Your task to perform on an android device: install app "Spotify" Image 0: 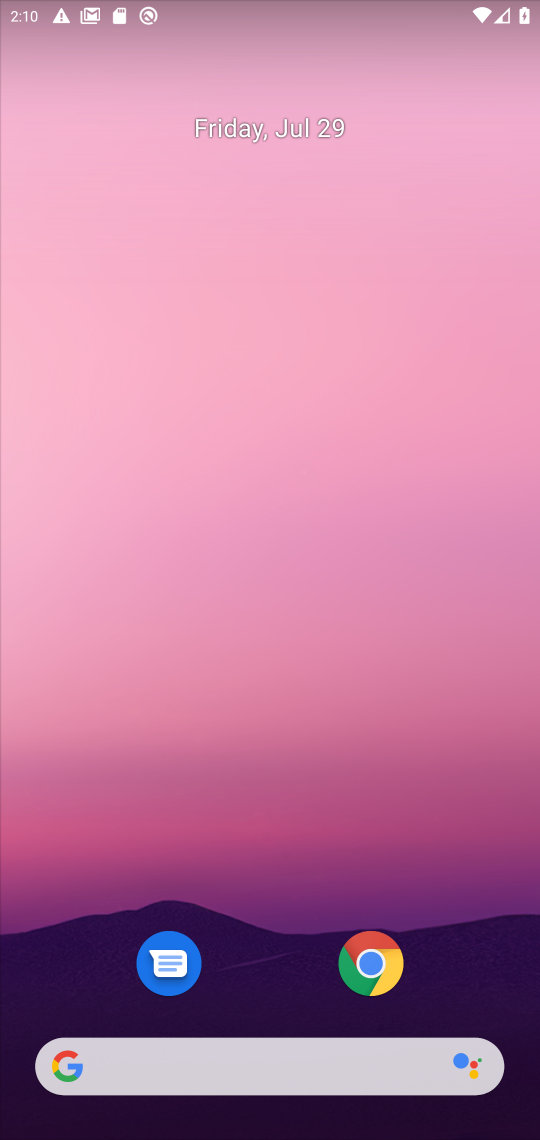
Step 0: drag from (260, 950) to (196, 58)
Your task to perform on an android device: install app "Spotify" Image 1: 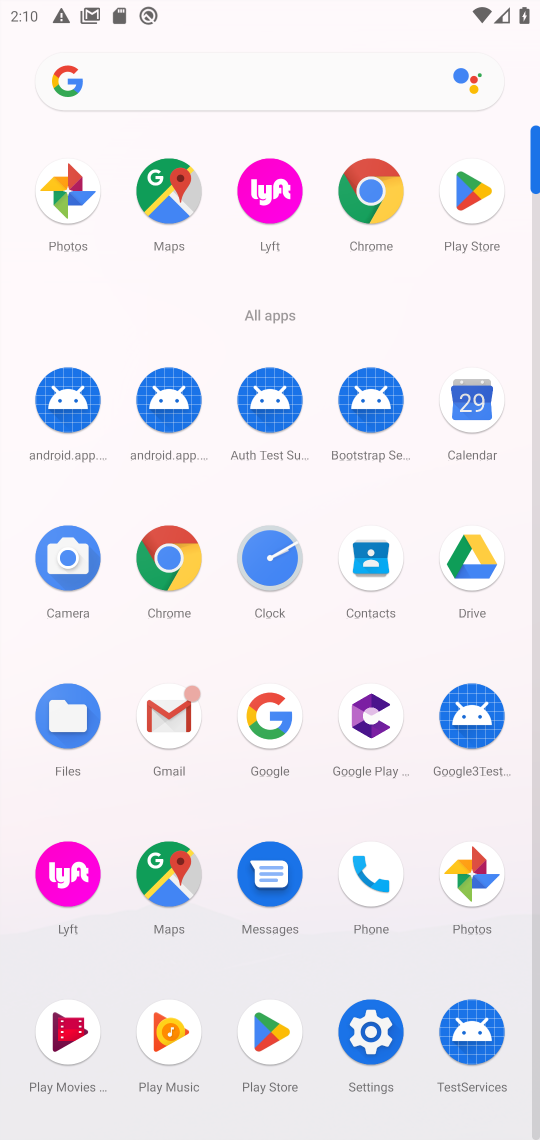
Step 1: click (462, 177)
Your task to perform on an android device: install app "Spotify" Image 2: 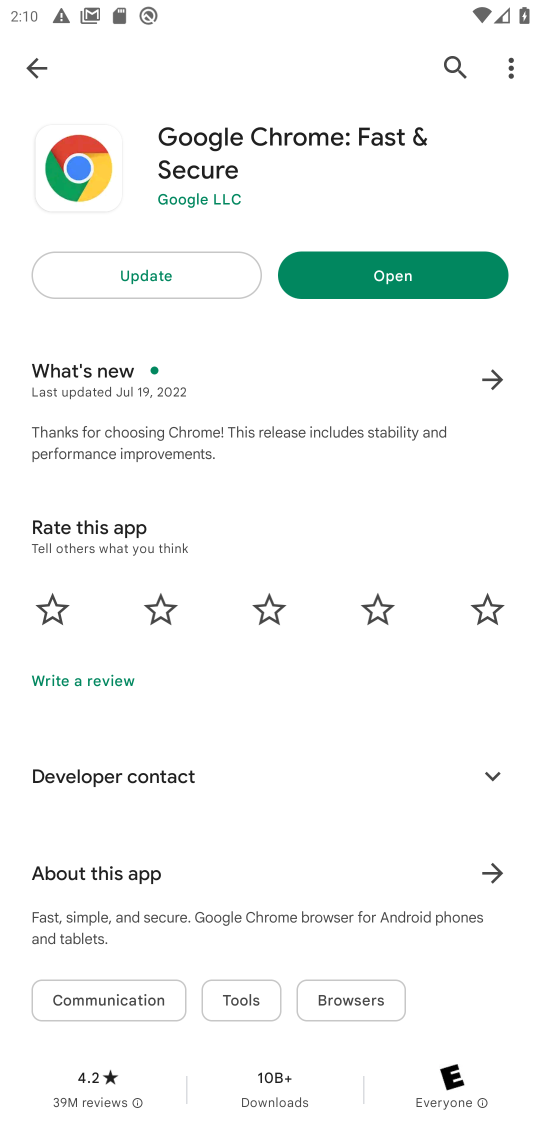
Step 2: click (458, 75)
Your task to perform on an android device: install app "Spotify" Image 3: 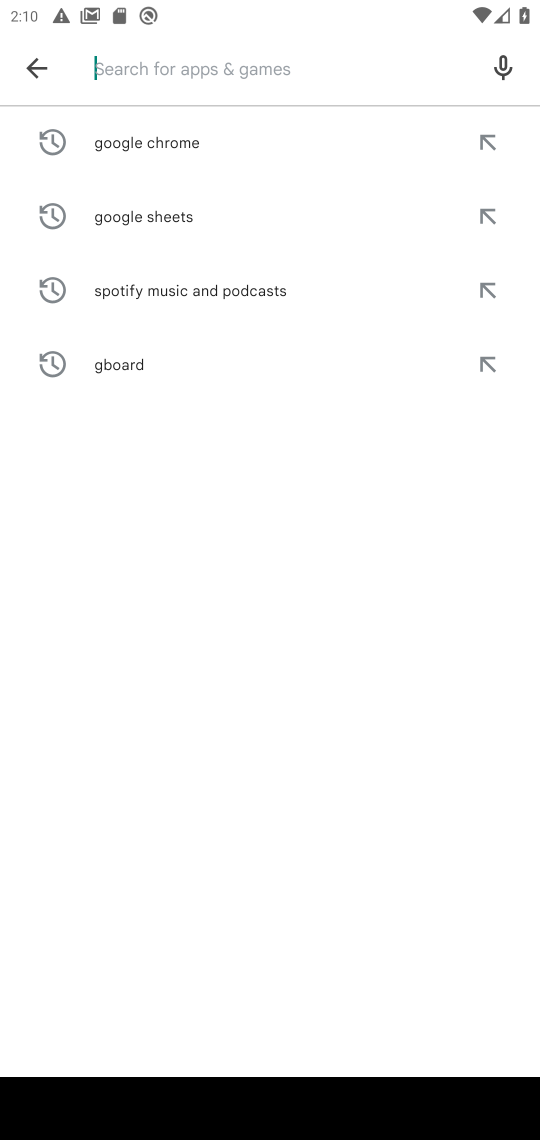
Step 3: type "Spotify"
Your task to perform on an android device: install app "Spotify" Image 4: 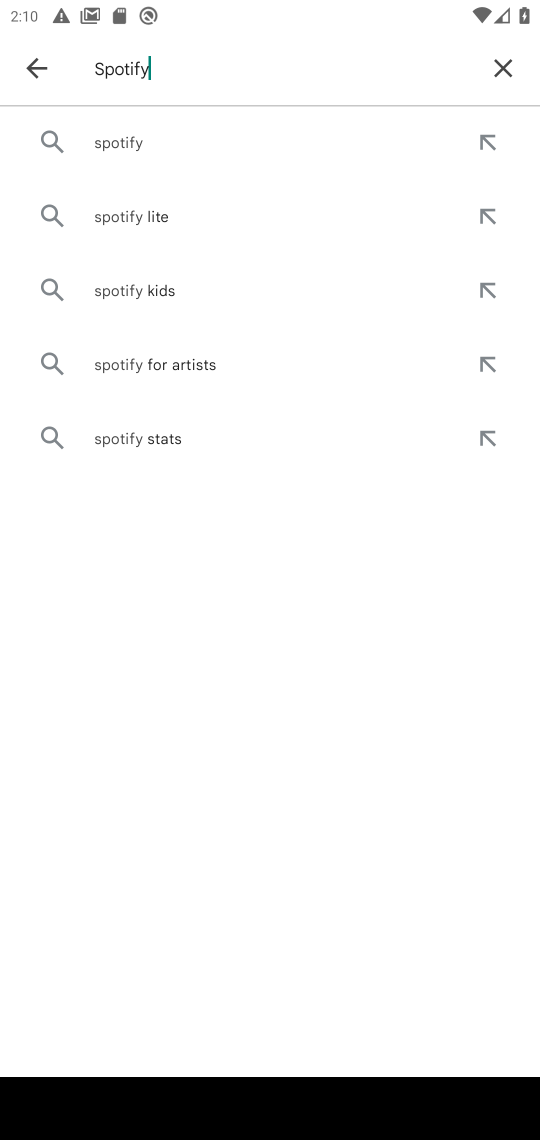
Step 4: click (296, 134)
Your task to perform on an android device: install app "Spotify" Image 5: 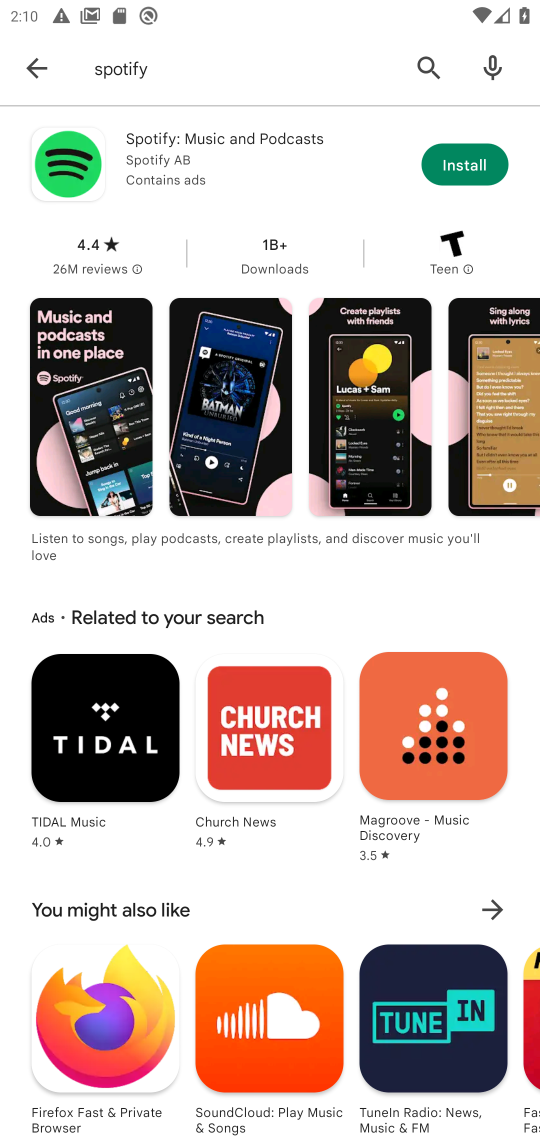
Step 5: click (236, 124)
Your task to perform on an android device: install app "Spotify" Image 6: 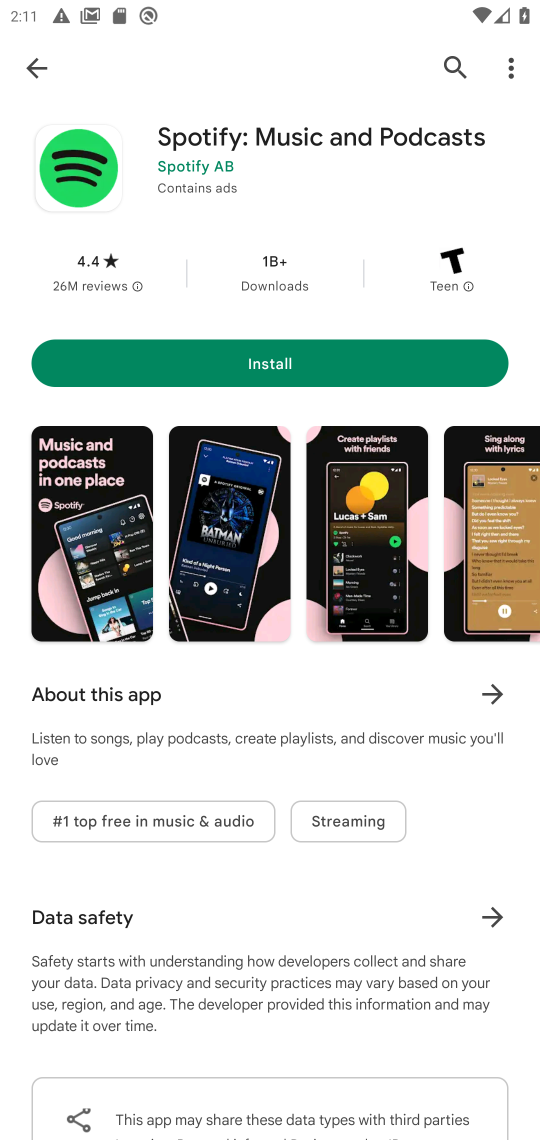
Step 6: click (253, 355)
Your task to perform on an android device: install app "Spotify" Image 7: 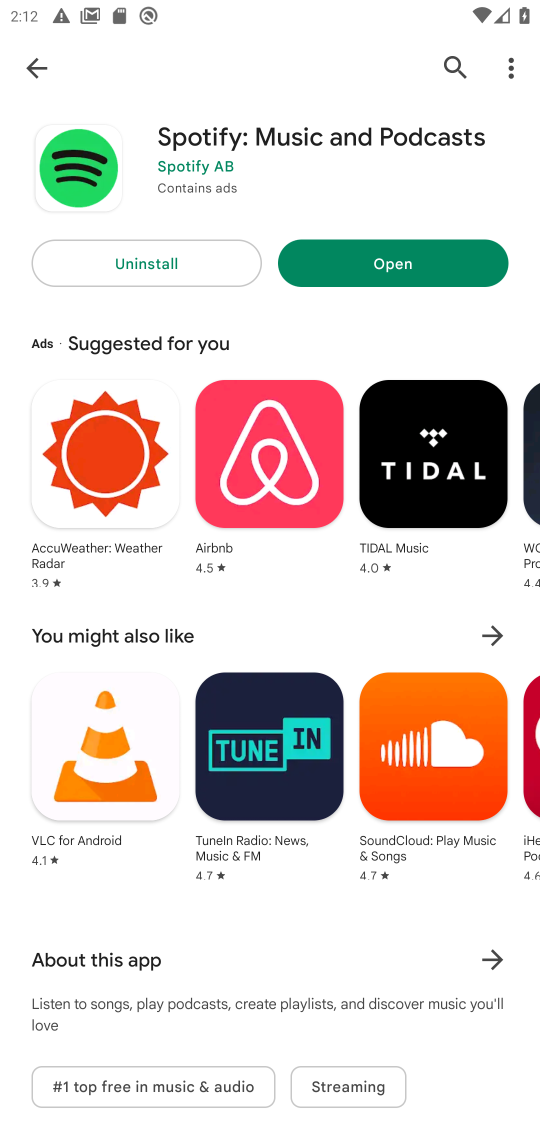
Step 7: task complete